Your task to perform on an android device: change the clock display to show seconds Image 0: 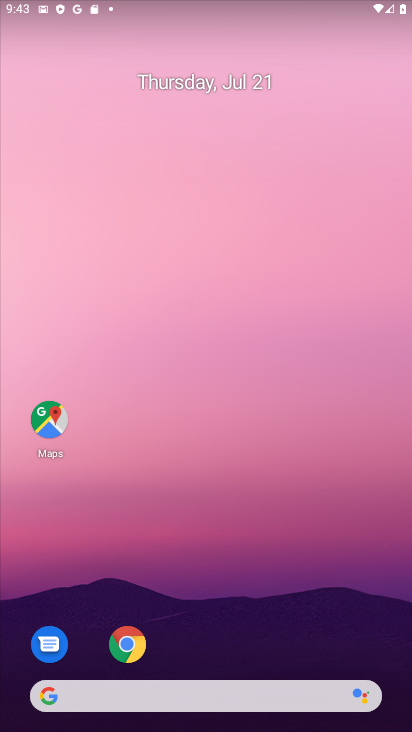
Step 0: press home button
Your task to perform on an android device: change the clock display to show seconds Image 1: 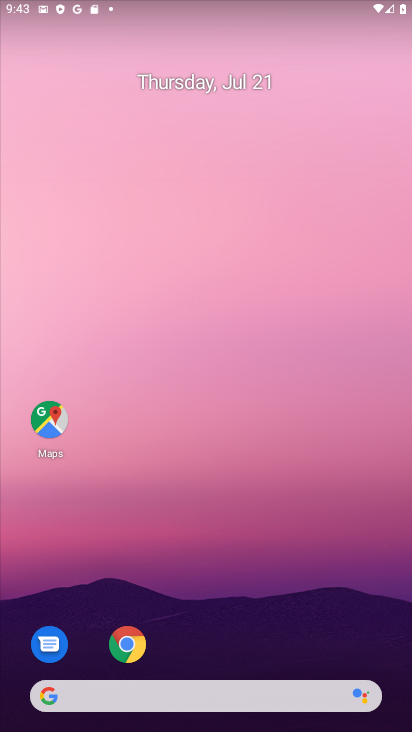
Step 1: drag from (198, 646) to (230, 202)
Your task to perform on an android device: change the clock display to show seconds Image 2: 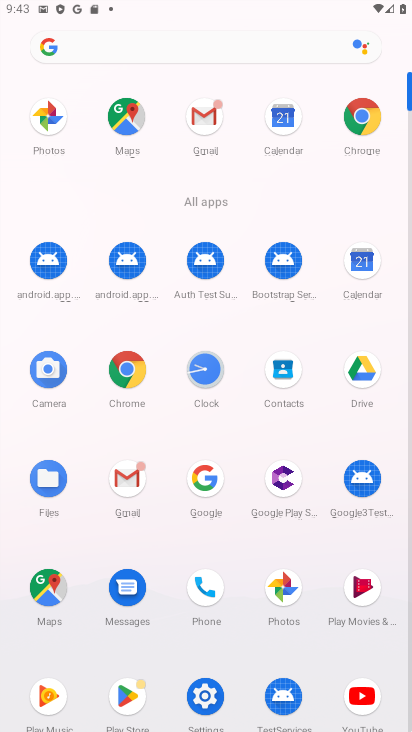
Step 2: click (197, 367)
Your task to perform on an android device: change the clock display to show seconds Image 3: 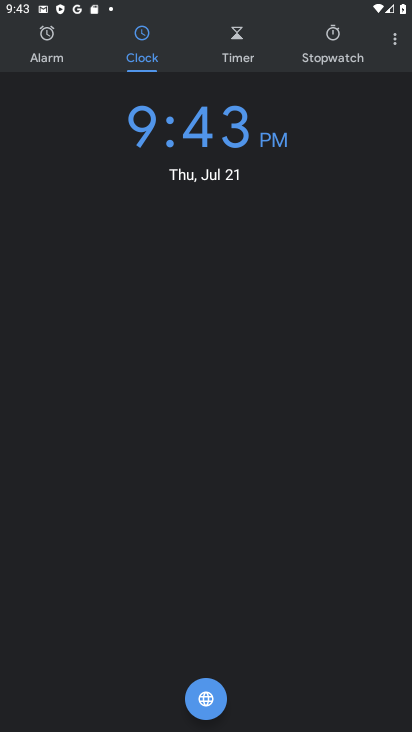
Step 3: click (398, 39)
Your task to perform on an android device: change the clock display to show seconds Image 4: 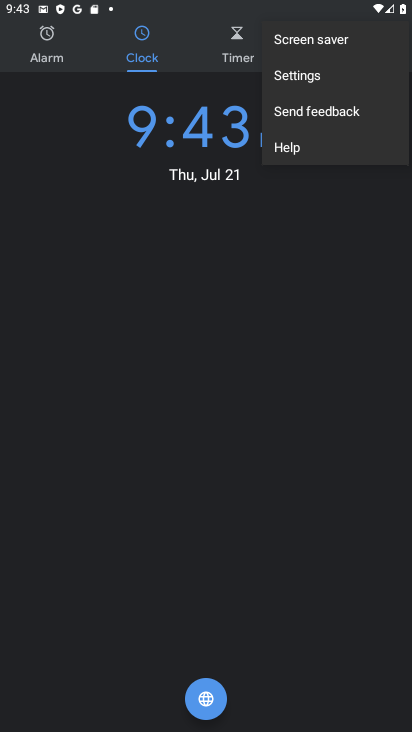
Step 4: click (317, 72)
Your task to perform on an android device: change the clock display to show seconds Image 5: 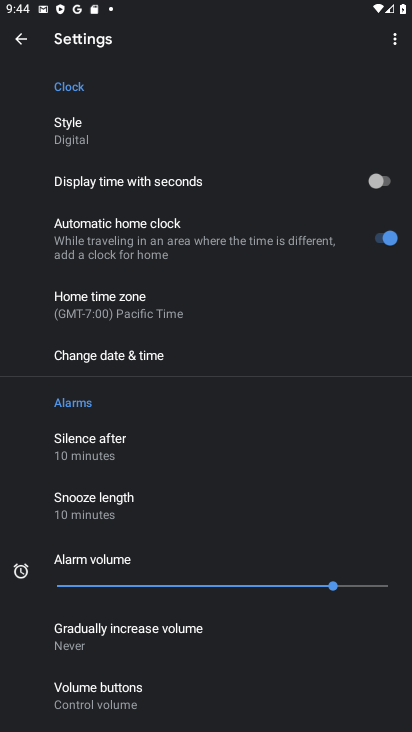
Step 5: click (377, 179)
Your task to perform on an android device: change the clock display to show seconds Image 6: 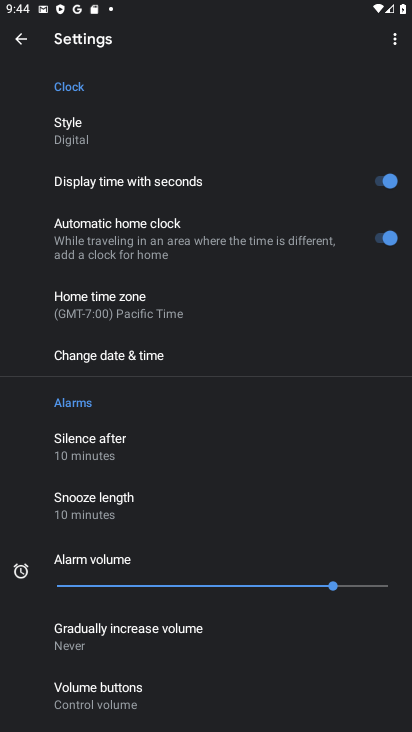
Step 6: task complete